Your task to perform on an android device: Open display settings Image 0: 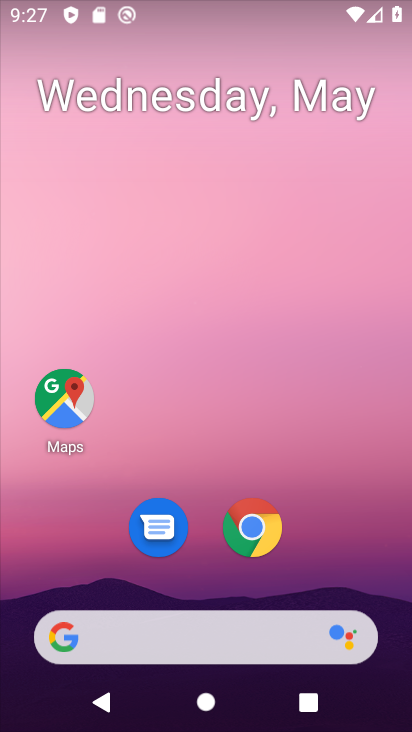
Step 0: drag from (195, 573) to (240, 67)
Your task to perform on an android device: Open display settings Image 1: 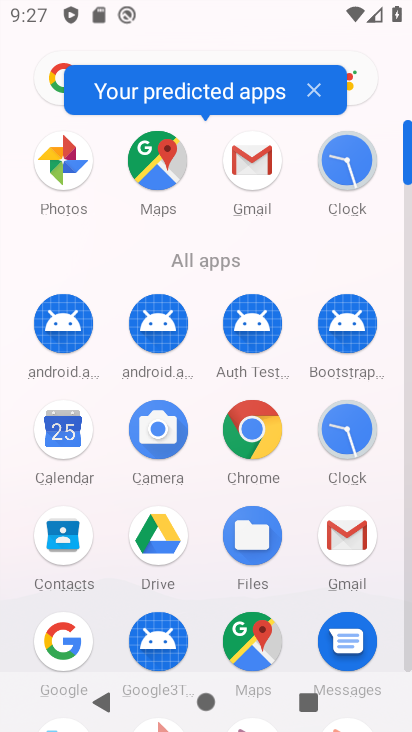
Step 1: drag from (200, 582) to (251, 145)
Your task to perform on an android device: Open display settings Image 2: 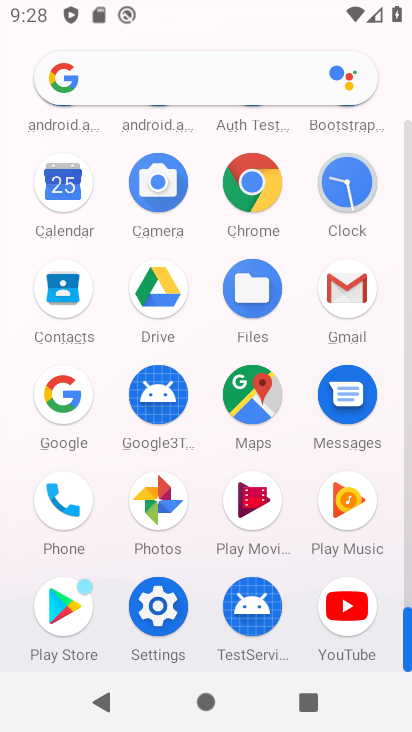
Step 2: click (160, 601)
Your task to perform on an android device: Open display settings Image 3: 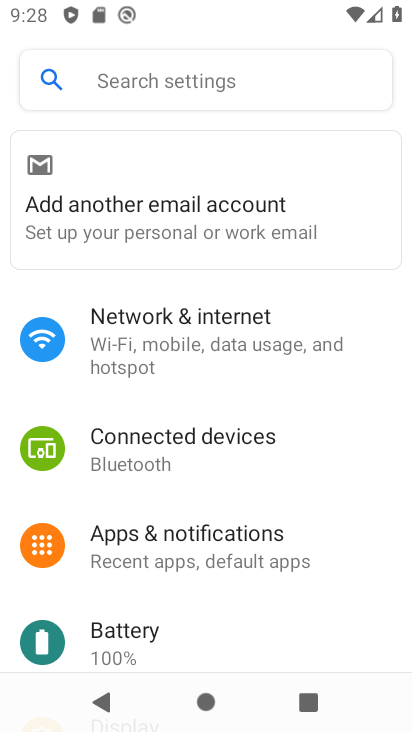
Step 3: drag from (177, 580) to (190, 238)
Your task to perform on an android device: Open display settings Image 4: 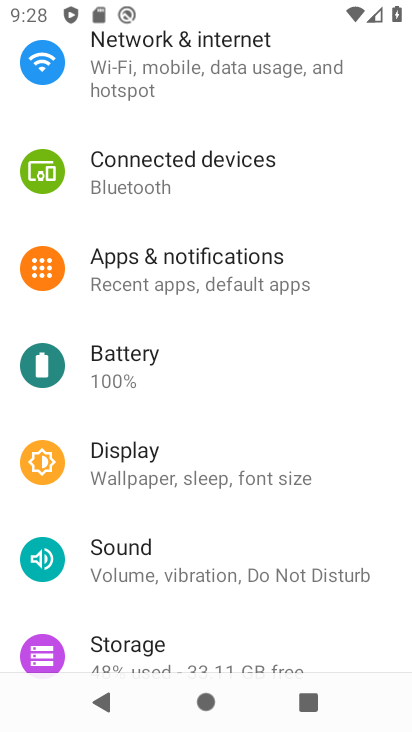
Step 4: click (107, 476)
Your task to perform on an android device: Open display settings Image 5: 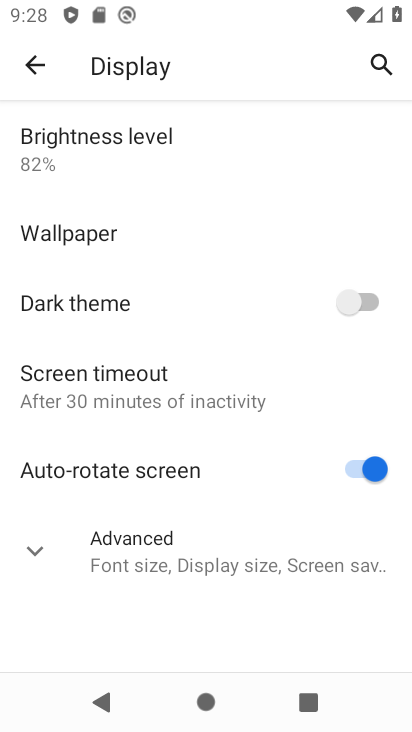
Step 5: task complete